Your task to perform on an android device: choose inbox layout in the gmail app Image 0: 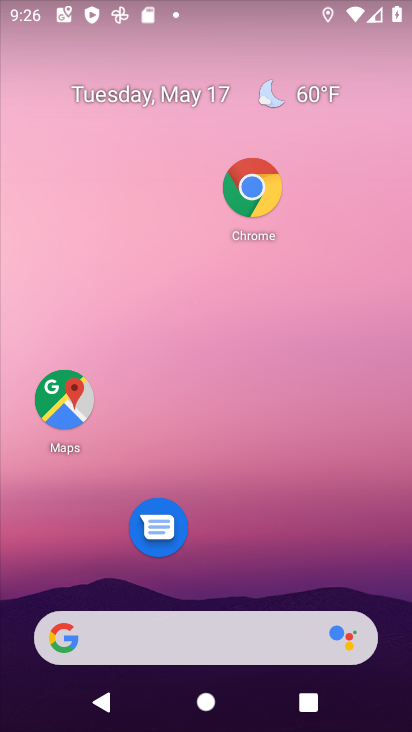
Step 0: drag from (299, 578) to (296, 267)
Your task to perform on an android device: choose inbox layout in the gmail app Image 1: 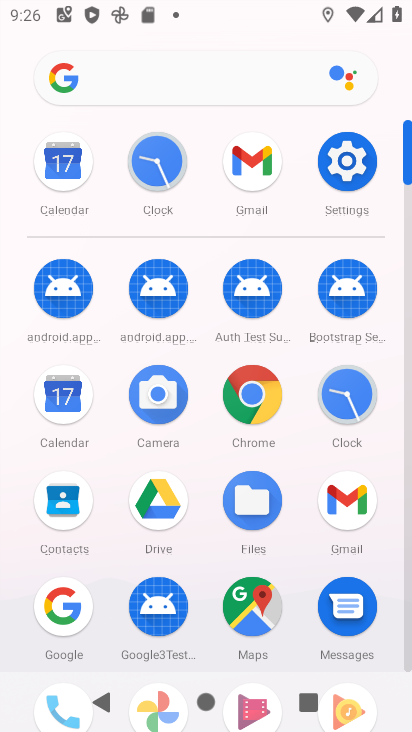
Step 1: click (348, 513)
Your task to perform on an android device: choose inbox layout in the gmail app Image 2: 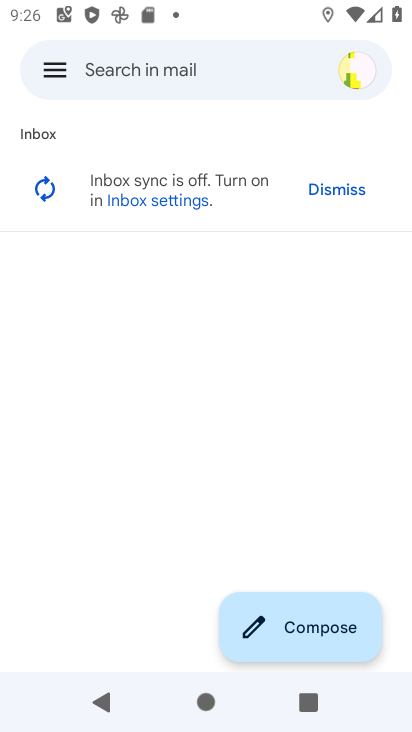
Step 2: click (67, 72)
Your task to perform on an android device: choose inbox layout in the gmail app Image 3: 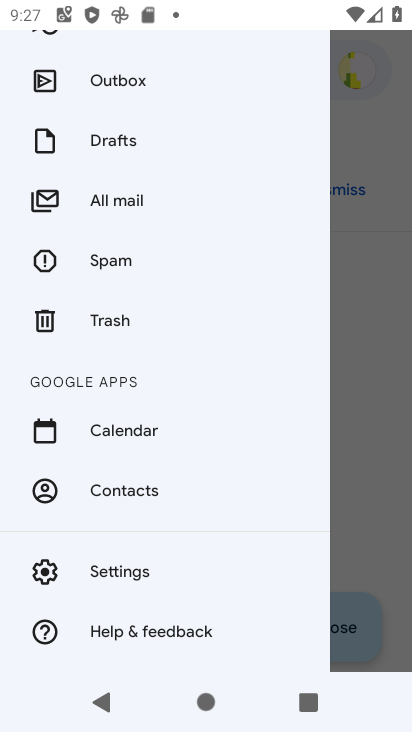
Step 3: drag from (151, 178) to (252, 723)
Your task to perform on an android device: choose inbox layout in the gmail app Image 4: 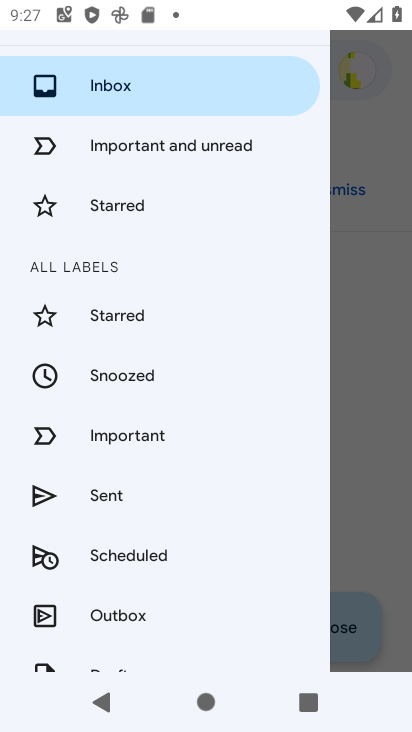
Step 4: click (150, 111)
Your task to perform on an android device: choose inbox layout in the gmail app Image 5: 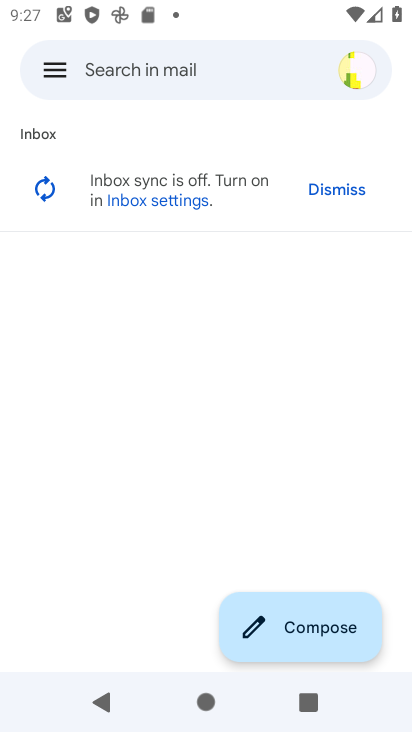
Step 5: task complete